Your task to perform on an android device: Open battery settings Image 0: 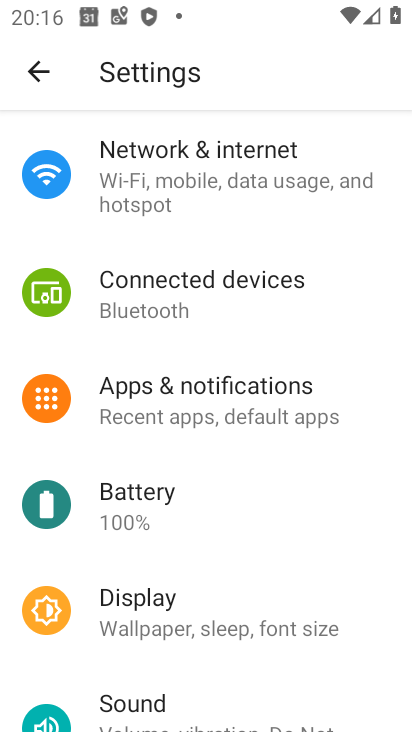
Step 0: click (110, 510)
Your task to perform on an android device: Open battery settings Image 1: 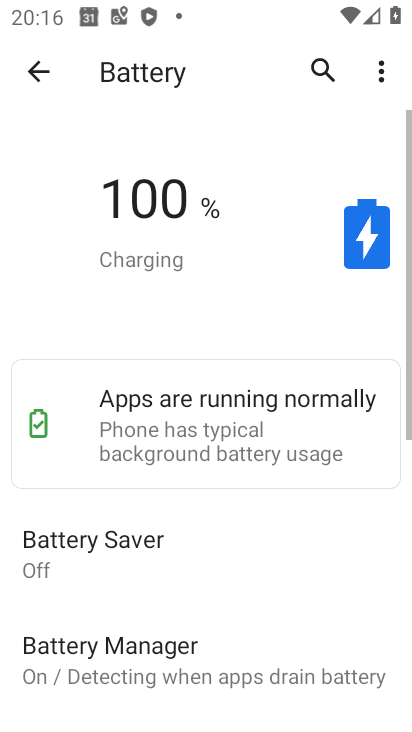
Step 1: task complete